Your task to perform on an android device: change alarm snooze length Image 0: 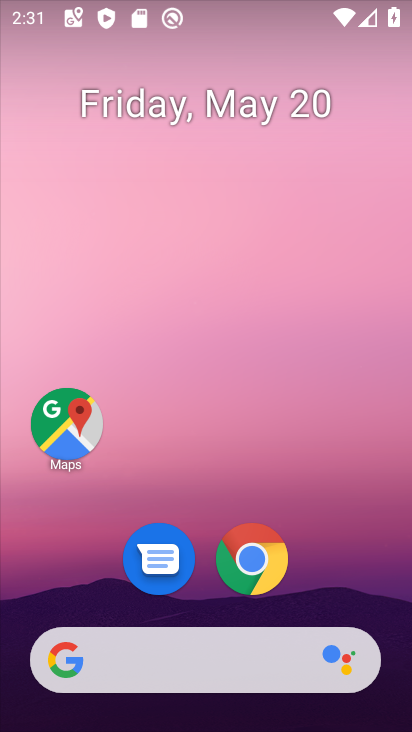
Step 0: drag from (246, 453) to (297, 9)
Your task to perform on an android device: change alarm snooze length Image 1: 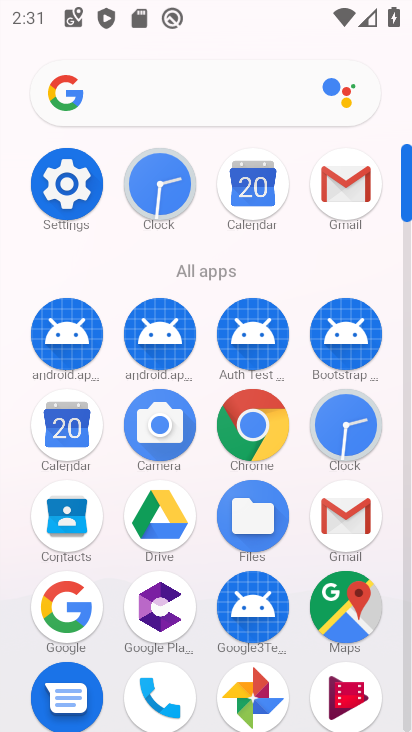
Step 1: click (169, 179)
Your task to perform on an android device: change alarm snooze length Image 2: 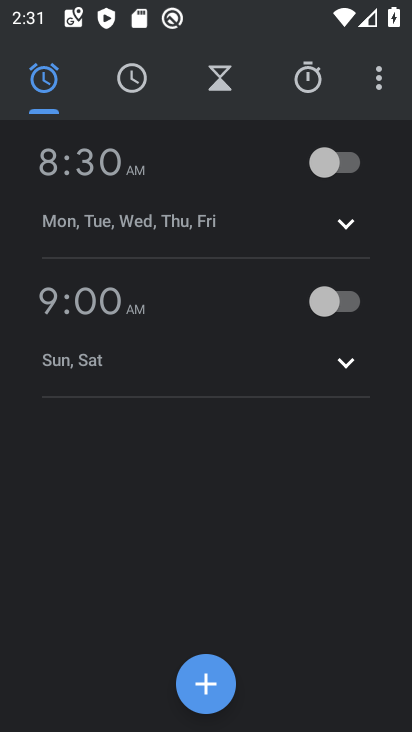
Step 2: click (377, 83)
Your task to perform on an android device: change alarm snooze length Image 3: 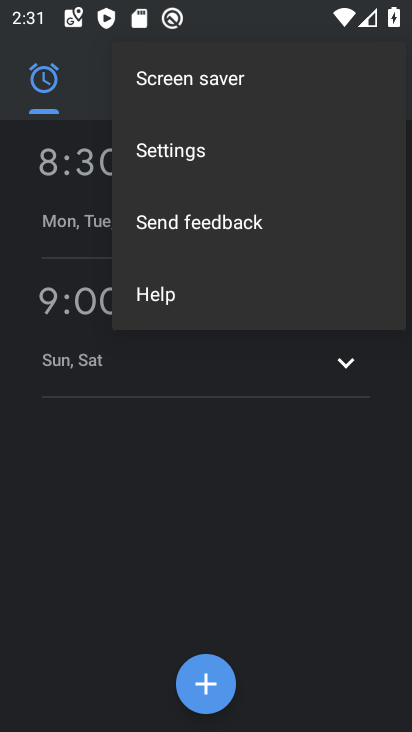
Step 3: click (271, 156)
Your task to perform on an android device: change alarm snooze length Image 4: 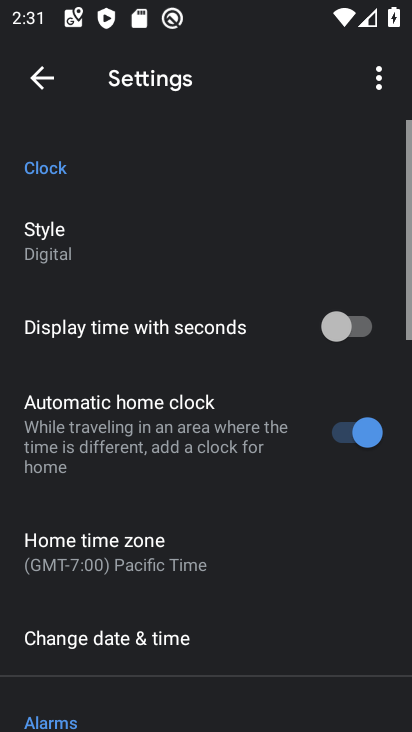
Step 4: drag from (221, 485) to (234, 177)
Your task to perform on an android device: change alarm snooze length Image 5: 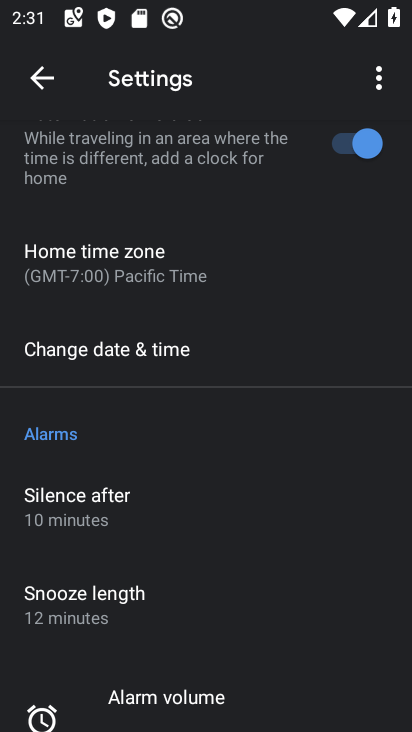
Step 5: click (109, 592)
Your task to perform on an android device: change alarm snooze length Image 6: 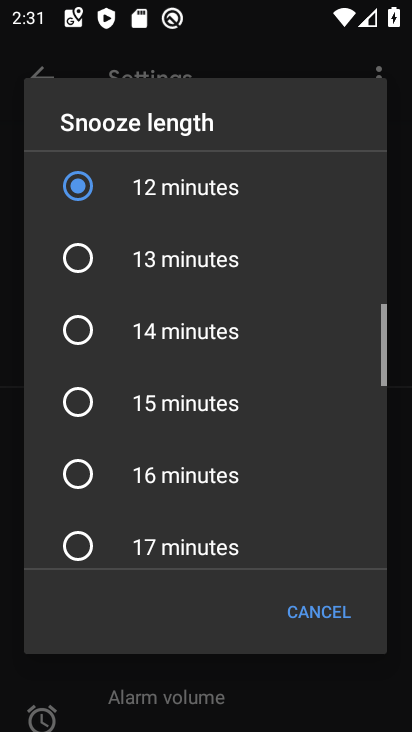
Step 6: drag from (196, 310) to (219, 438)
Your task to perform on an android device: change alarm snooze length Image 7: 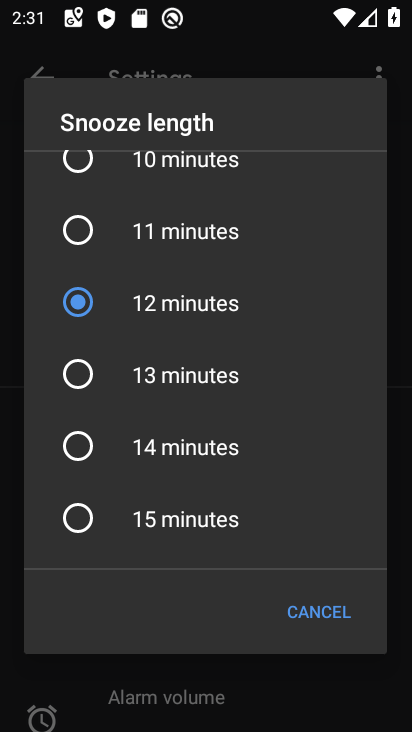
Step 7: click (77, 163)
Your task to perform on an android device: change alarm snooze length Image 8: 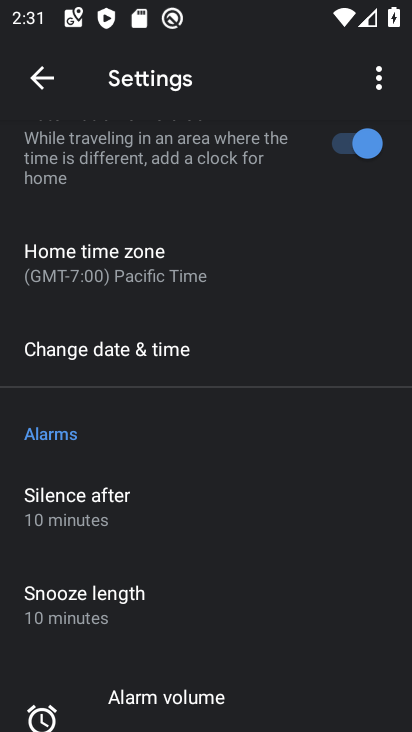
Step 8: task complete